Your task to perform on an android device: Open eBay Image 0: 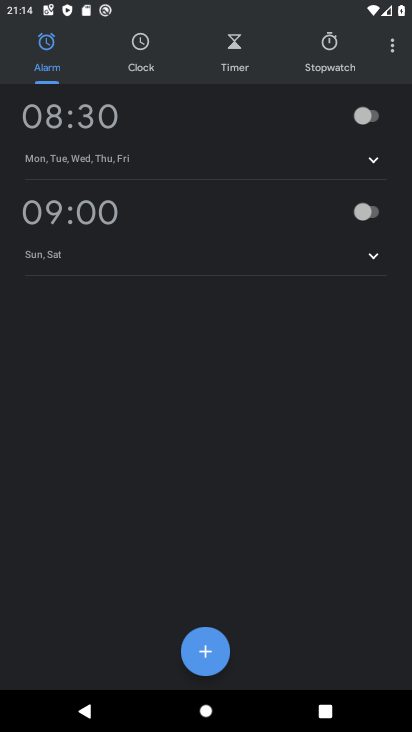
Step 0: press home button
Your task to perform on an android device: Open eBay Image 1: 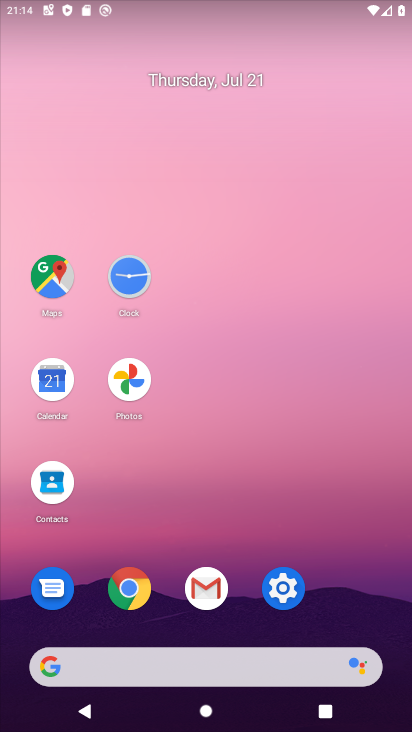
Step 1: click (124, 591)
Your task to perform on an android device: Open eBay Image 2: 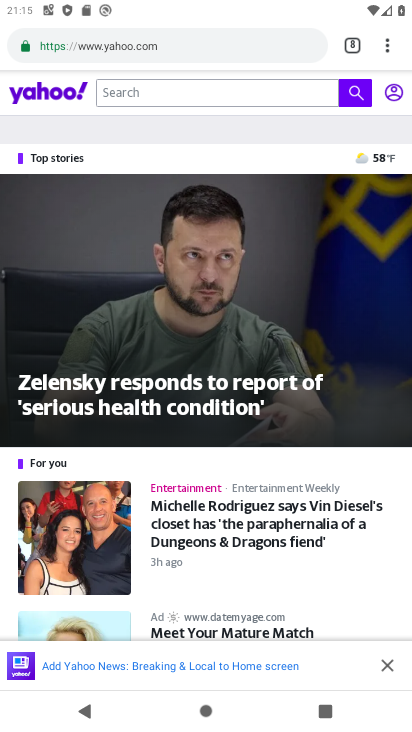
Step 2: click (389, 45)
Your task to perform on an android device: Open eBay Image 3: 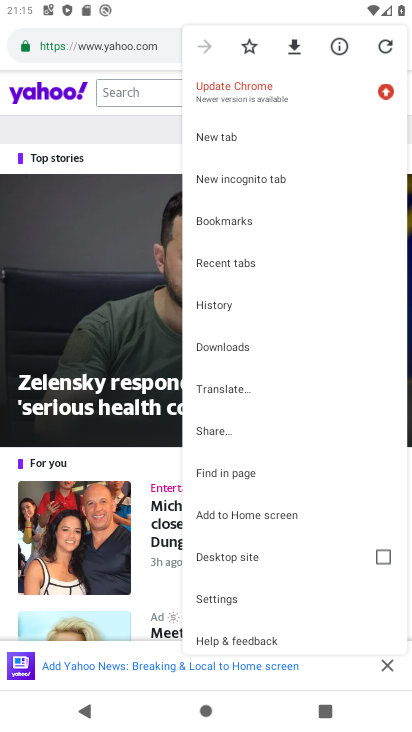
Step 3: click (223, 133)
Your task to perform on an android device: Open eBay Image 4: 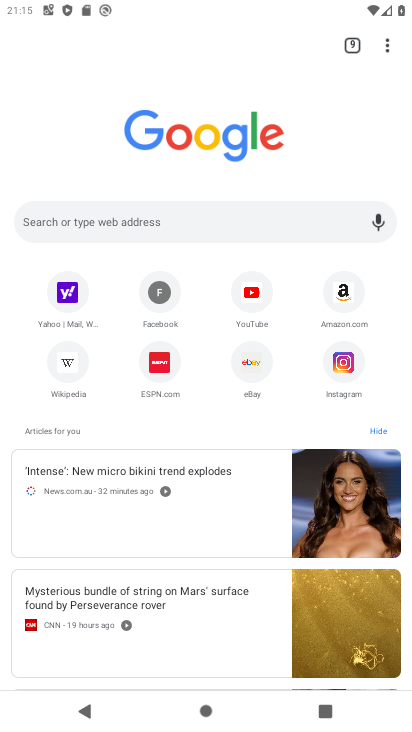
Step 4: click (246, 358)
Your task to perform on an android device: Open eBay Image 5: 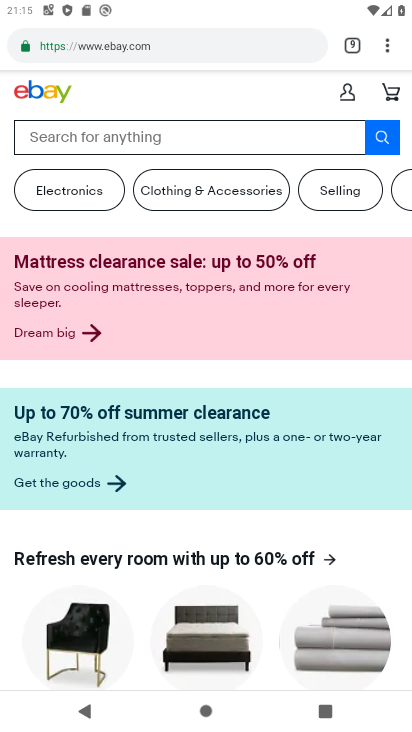
Step 5: task complete